Your task to perform on an android device: toggle improve location accuracy Image 0: 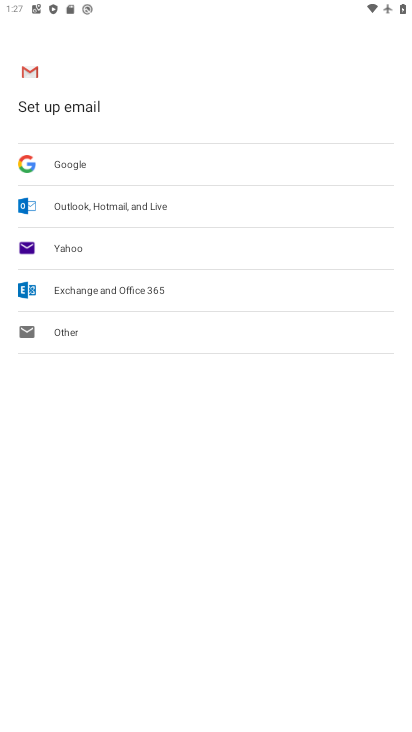
Step 0: press home button
Your task to perform on an android device: toggle improve location accuracy Image 1: 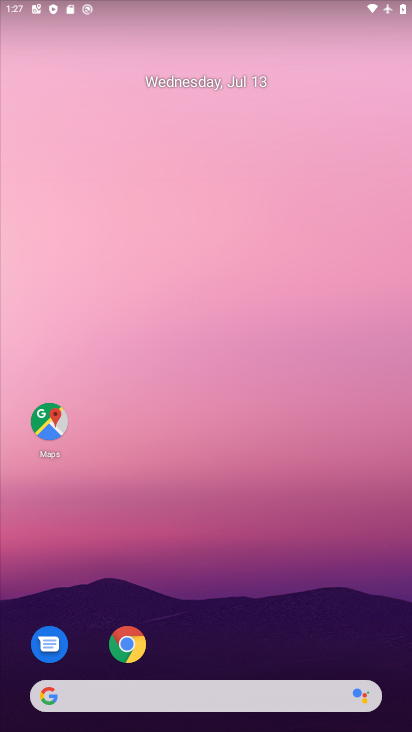
Step 1: drag from (308, 625) to (280, 90)
Your task to perform on an android device: toggle improve location accuracy Image 2: 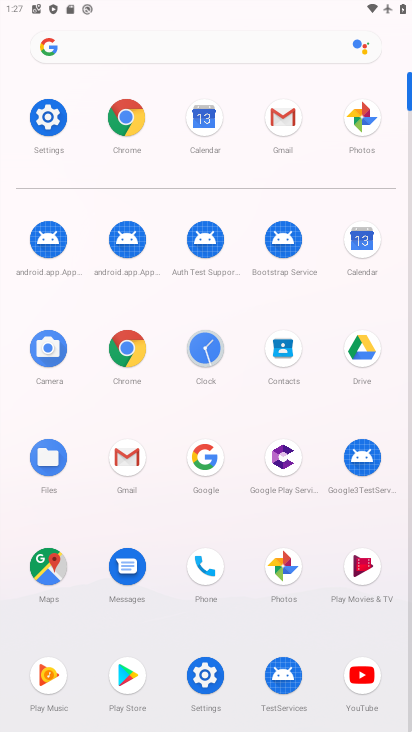
Step 2: click (37, 112)
Your task to perform on an android device: toggle improve location accuracy Image 3: 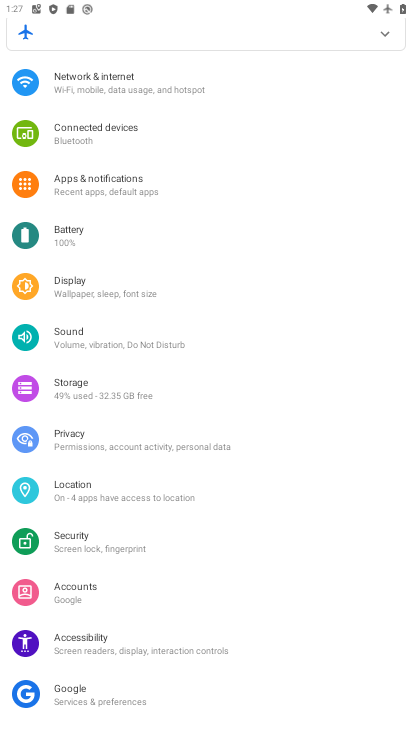
Step 3: click (93, 496)
Your task to perform on an android device: toggle improve location accuracy Image 4: 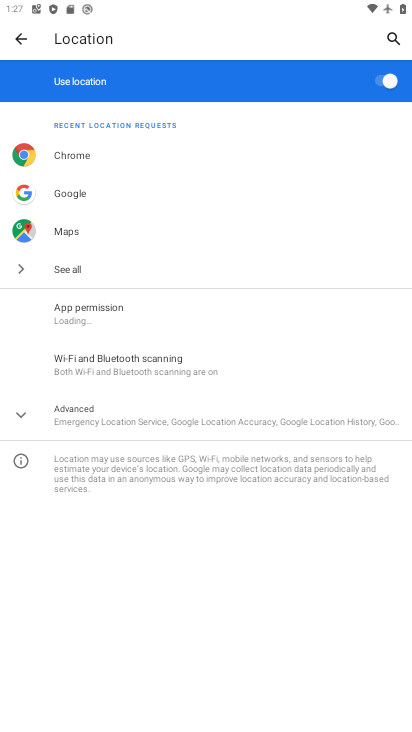
Step 4: click (75, 421)
Your task to perform on an android device: toggle improve location accuracy Image 5: 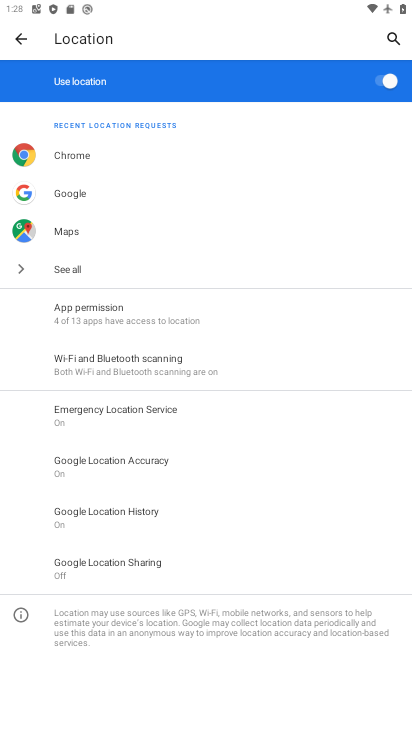
Step 5: click (156, 459)
Your task to perform on an android device: toggle improve location accuracy Image 6: 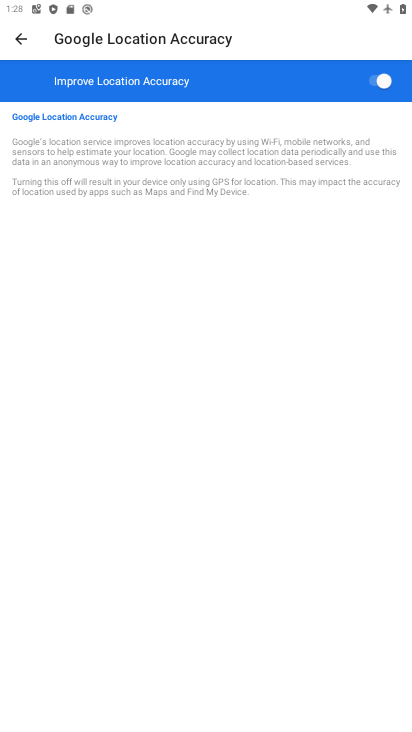
Step 6: click (361, 80)
Your task to perform on an android device: toggle improve location accuracy Image 7: 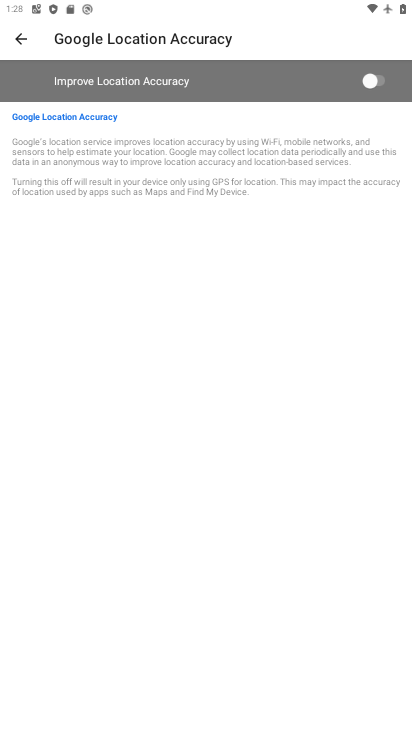
Step 7: task complete